Your task to perform on an android device: change notifications settings Image 0: 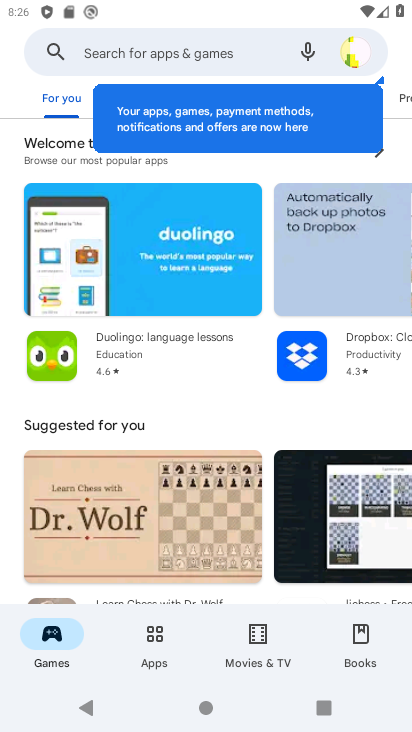
Step 0: press home button
Your task to perform on an android device: change notifications settings Image 1: 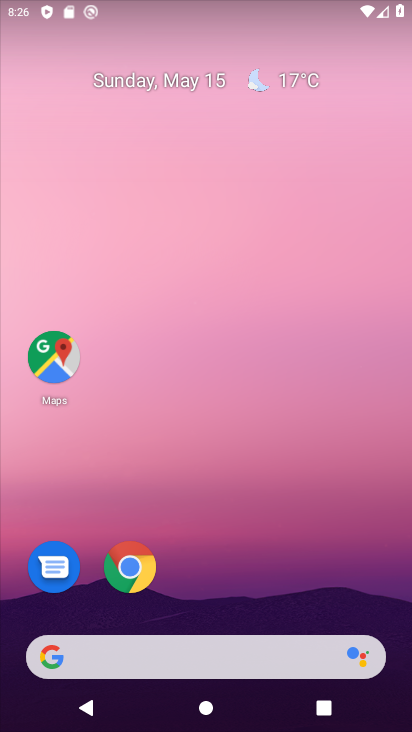
Step 1: drag from (205, 668) to (288, 134)
Your task to perform on an android device: change notifications settings Image 2: 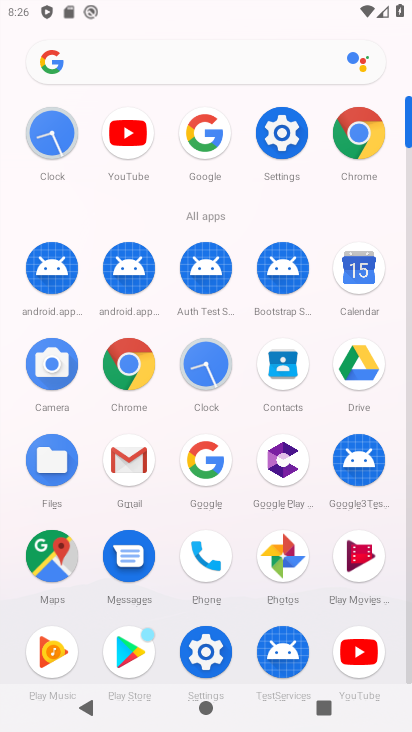
Step 2: click (278, 150)
Your task to perform on an android device: change notifications settings Image 3: 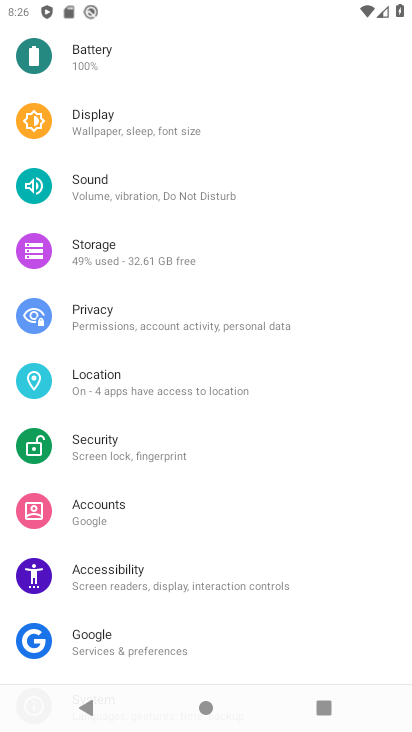
Step 3: drag from (248, 125) to (202, 618)
Your task to perform on an android device: change notifications settings Image 4: 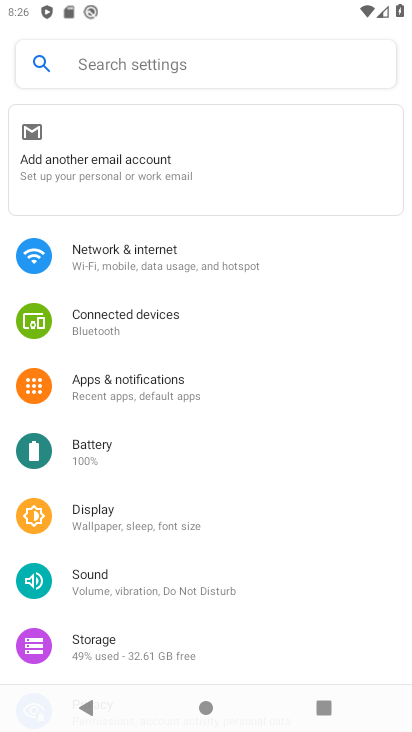
Step 4: click (122, 576)
Your task to perform on an android device: change notifications settings Image 5: 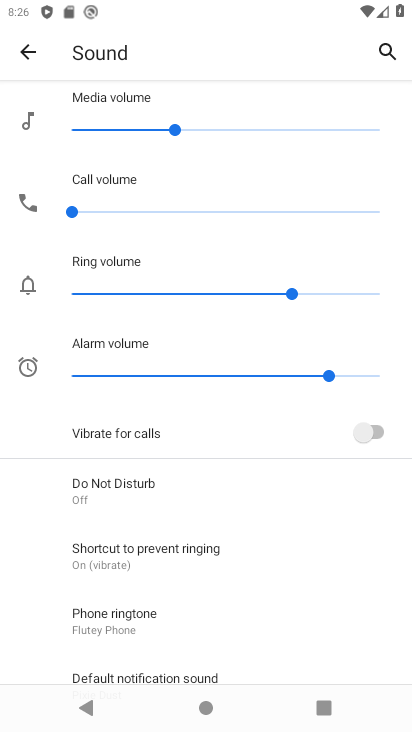
Step 5: click (380, 430)
Your task to perform on an android device: change notifications settings Image 6: 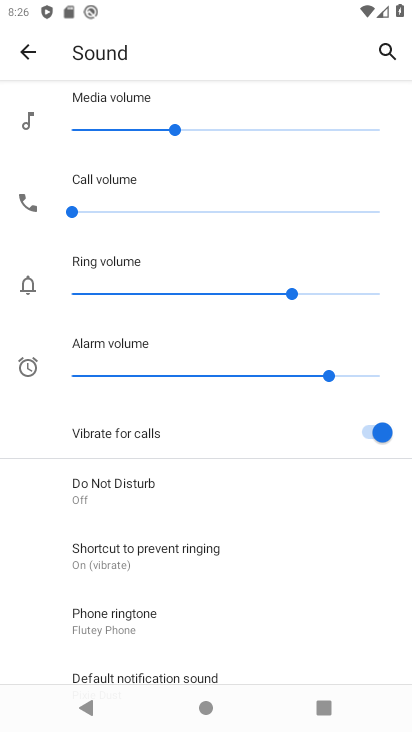
Step 6: task complete